Your task to perform on an android device: Go to Maps Image 0: 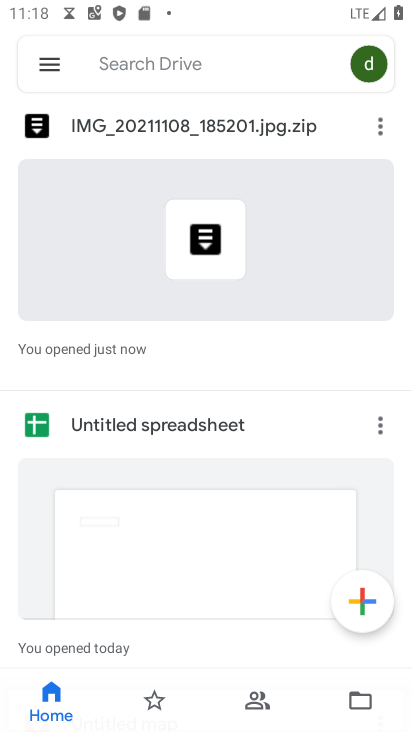
Step 0: press home button
Your task to perform on an android device: Go to Maps Image 1: 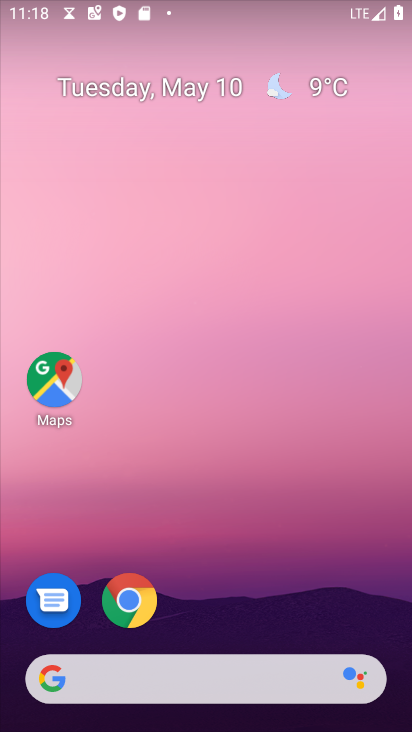
Step 1: click (52, 367)
Your task to perform on an android device: Go to Maps Image 2: 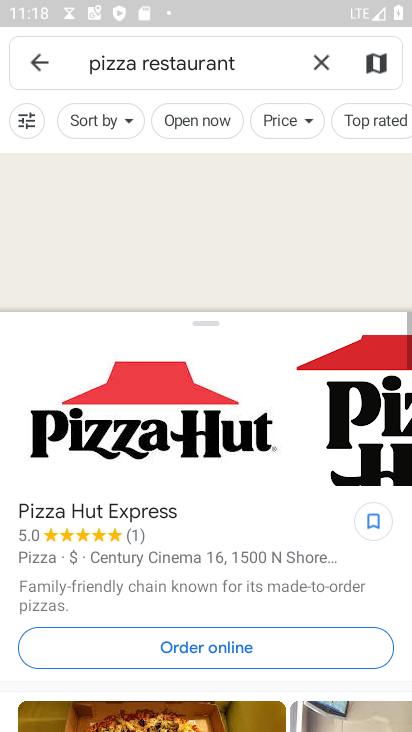
Step 2: task complete